Your task to perform on an android device: Open calendar and show me the third week of next month Image 0: 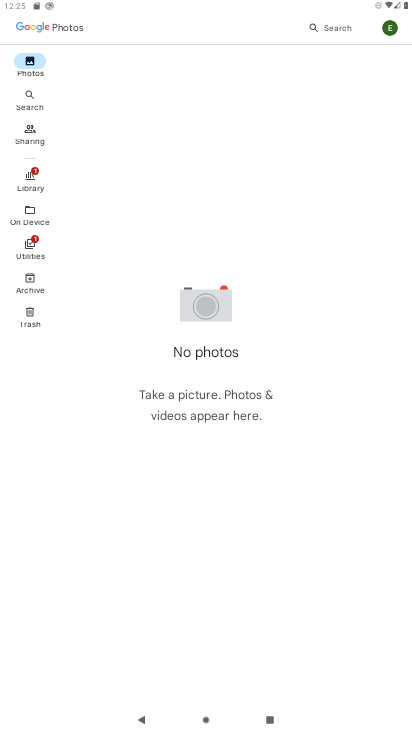
Step 0: press home button
Your task to perform on an android device: Open calendar and show me the third week of next month Image 1: 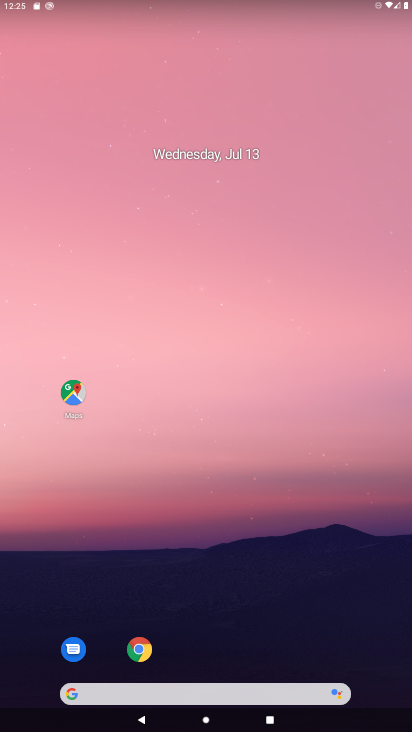
Step 1: drag from (381, 667) to (346, 179)
Your task to perform on an android device: Open calendar and show me the third week of next month Image 2: 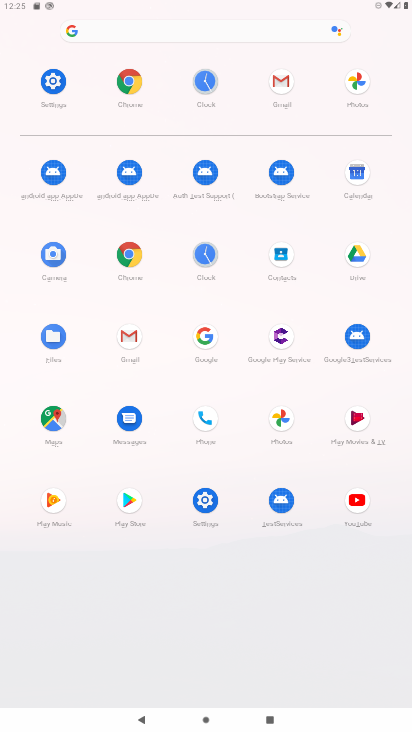
Step 2: click (359, 172)
Your task to perform on an android device: Open calendar and show me the third week of next month Image 3: 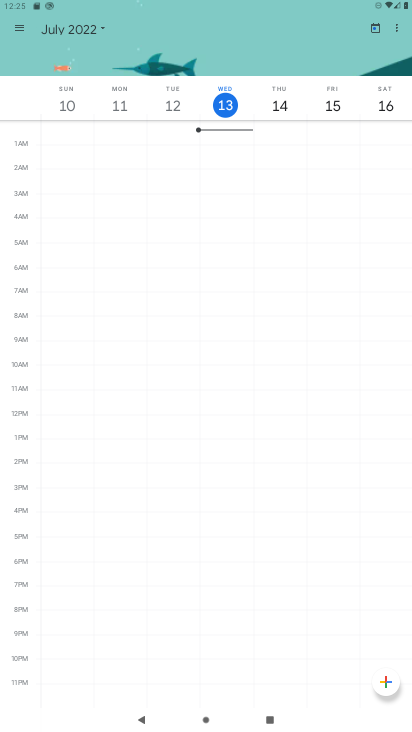
Step 3: click (98, 30)
Your task to perform on an android device: Open calendar and show me the third week of next month Image 4: 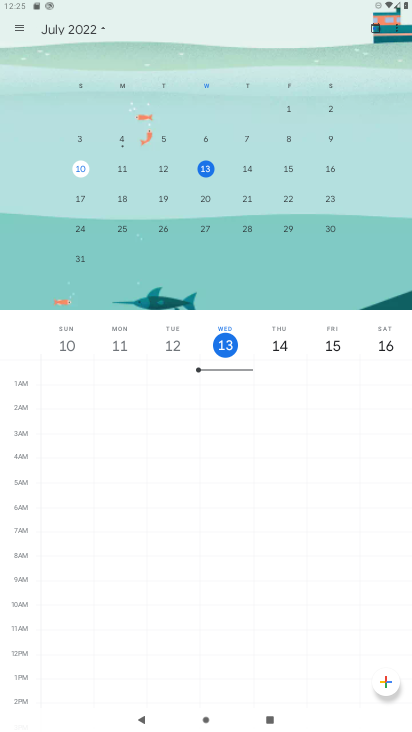
Step 4: drag from (345, 204) to (29, 197)
Your task to perform on an android device: Open calendar and show me the third week of next month Image 5: 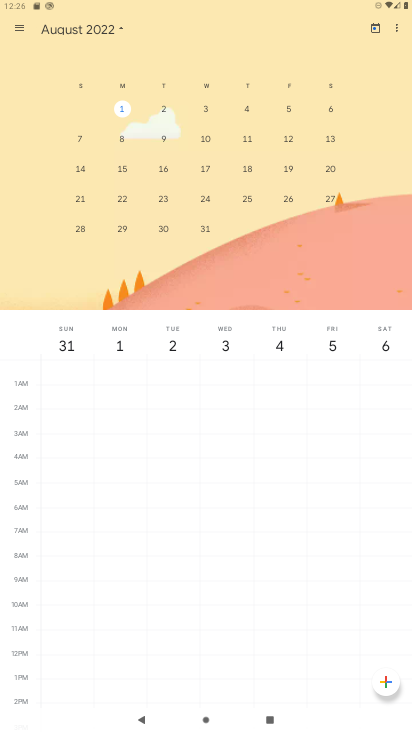
Step 5: click (78, 202)
Your task to perform on an android device: Open calendar and show me the third week of next month Image 6: 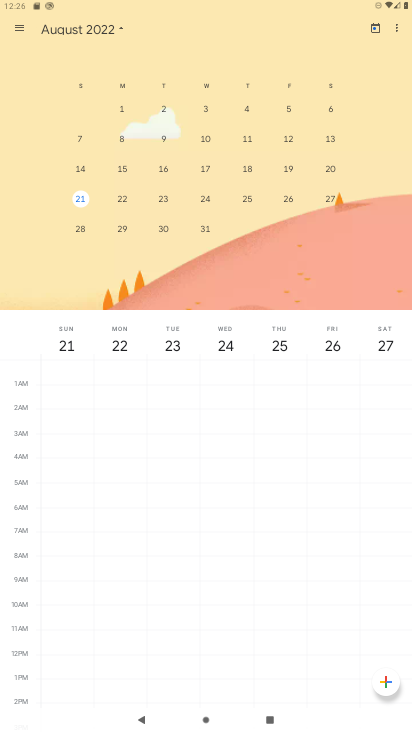
Step 6: task complete